Your task to perform on an android device: Go to internet settings Image 0: 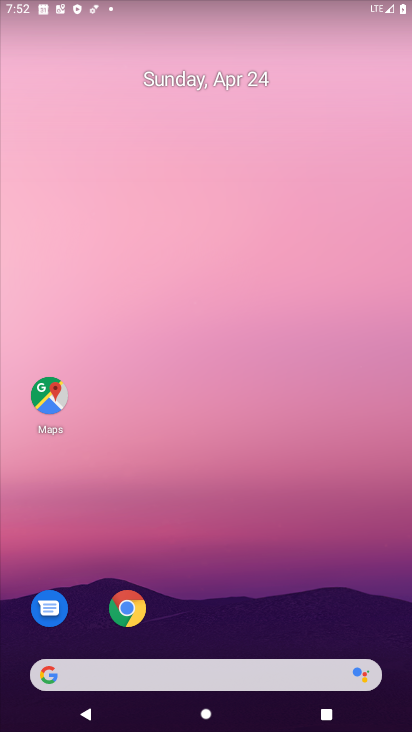
Step 0: drag from (261, 535) to (267, 107)
Your task to perform on an android device: Go to internet settings Image 1: 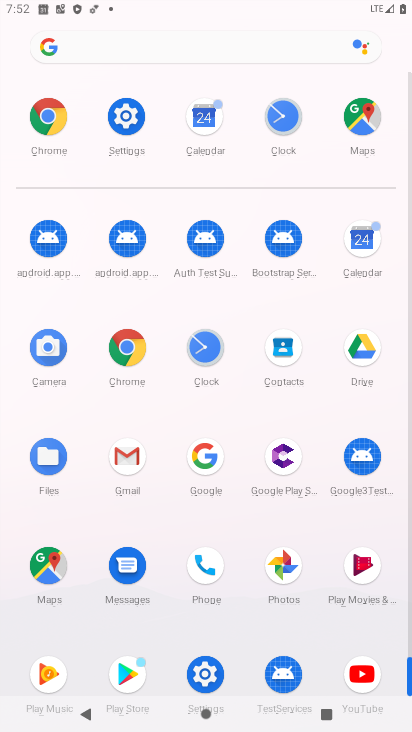
Step 1: click (119, 111)
Your task to perform on an android device: Go to internet settings Image 2: 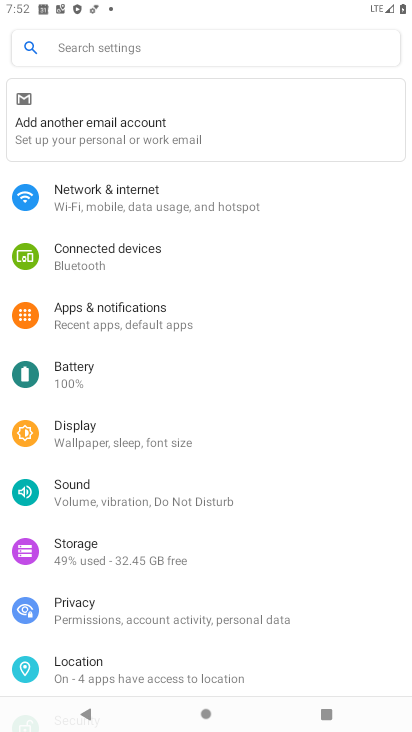
Step 2: click (108, 201)
Your task to perform on an android device: Go to internet settings Image 3: 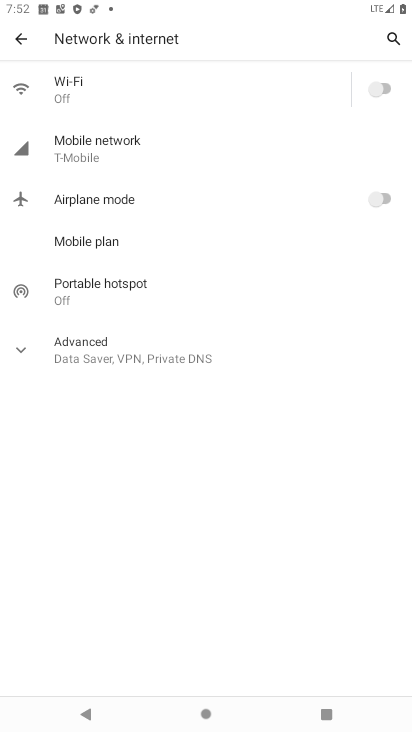
Step 3: task complete